Your task to perform on an android device: toggle translation in the chrome app Image 0: 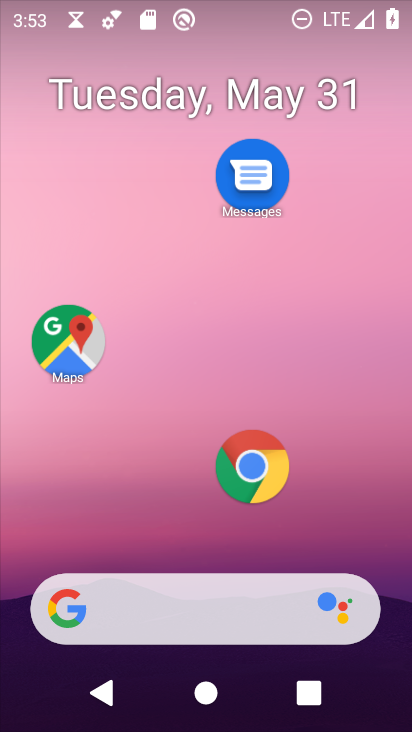
Step 0: click (255, 469)
Your task to perform on an android device: toggle translation in the chrome app Image 1: 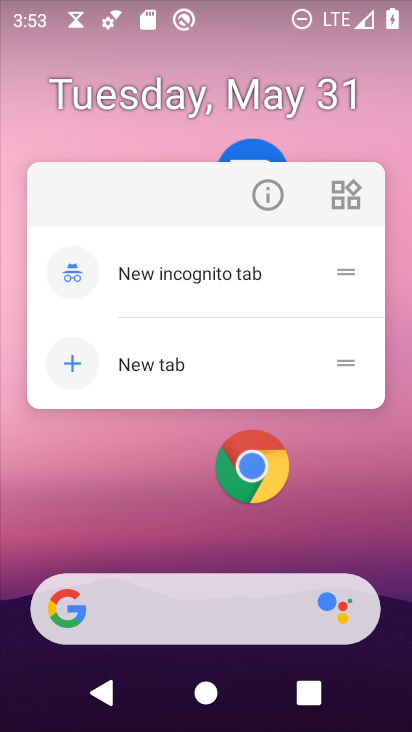
Step 1: click (254, 478)
Your task to perform on an android device: toggle translation in the chrome app Image 2: 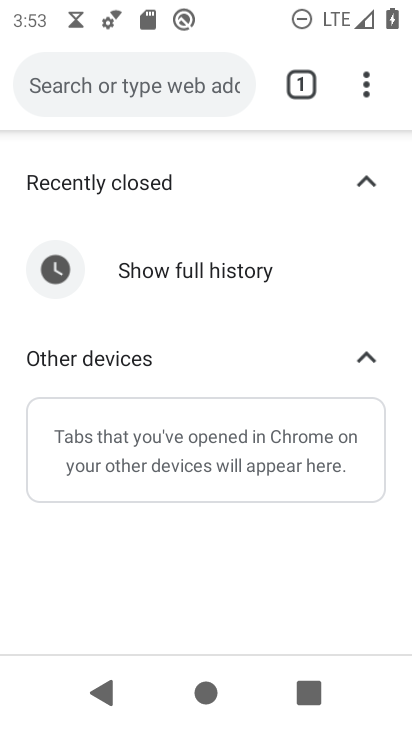
Step 2: drag from (360, 81) to (88, 511)
Your task to perform on an android device: toggle translation in the chrome app Image 3: 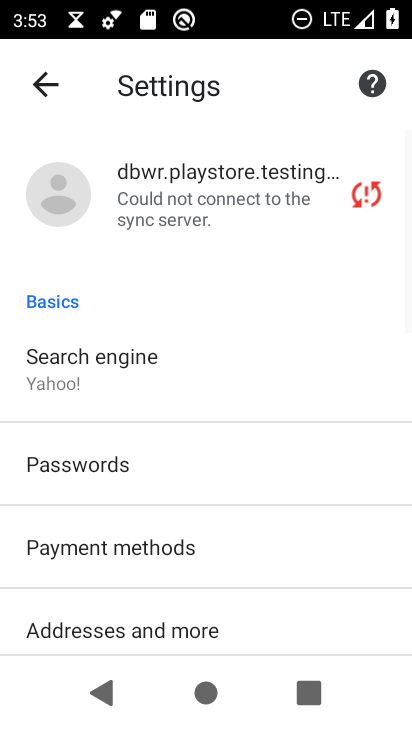
Step 3: drag from (132, 618) to (265, 156)
Your task to perform on an android device: toggle translation in the chrome app Image 4: 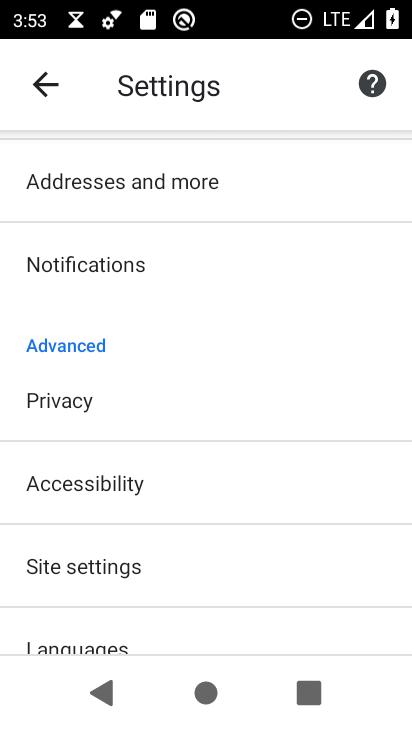
Step 4: drag from (84, 619) to (151, 417)
Your task to perform on an android device: toggle translation in the chrome app Image 5: 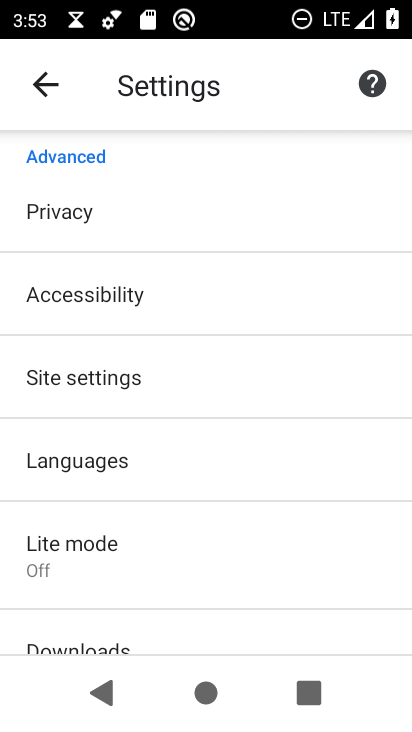
Step 5: click (68, 450)
Your task to perform on an android device: toggle translation in the chrome app Image 6: 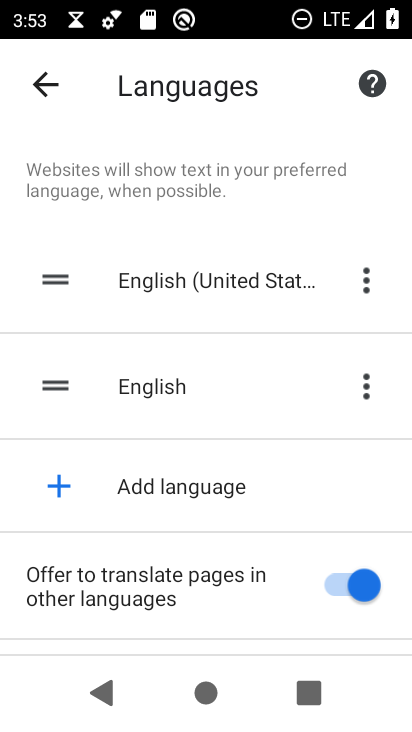
Step 6: click (358, 582)
Your task to perform on an android device: toggle translation in the chrome app Image 7: 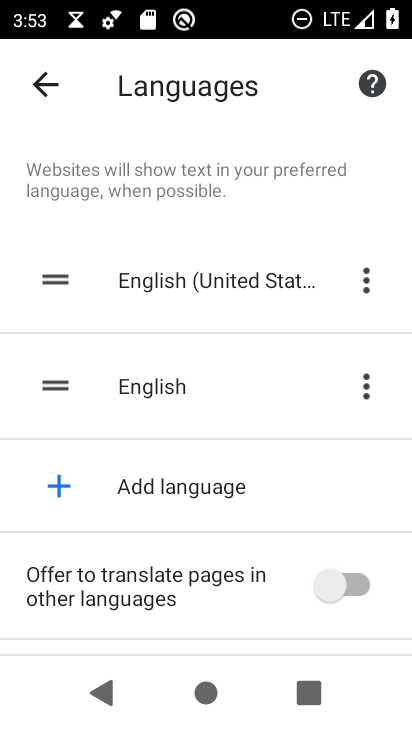
Step 7: task complete